Your task to perform on an android device: turn pop-ups on in chrome Image 0: 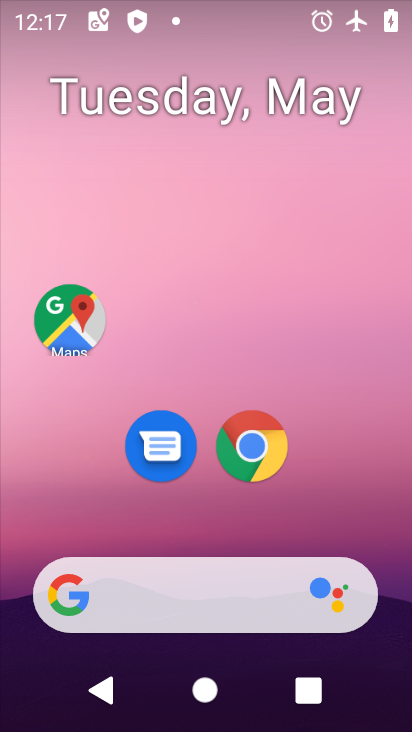
Step 0: click (241, 460)
Your task to perform on an android device: turn pop-ups on in chrome Image 1: 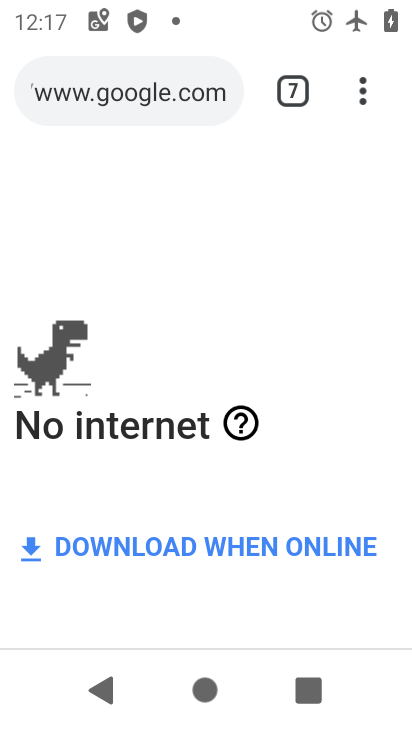
Step 1: click (360, 91)
Your task to perform on an android device: turn pop-ups on in chrome Image 2: 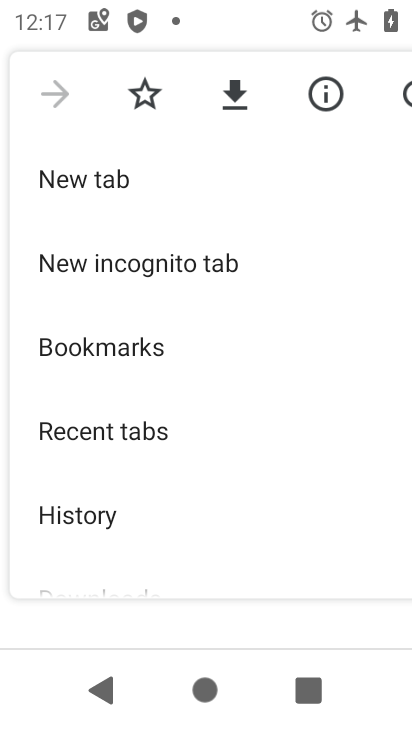
Step 2: drag from (213, 501) to (250, 99)
Your task to perform on an android device: turn pop-ups on in chrome Image 3: 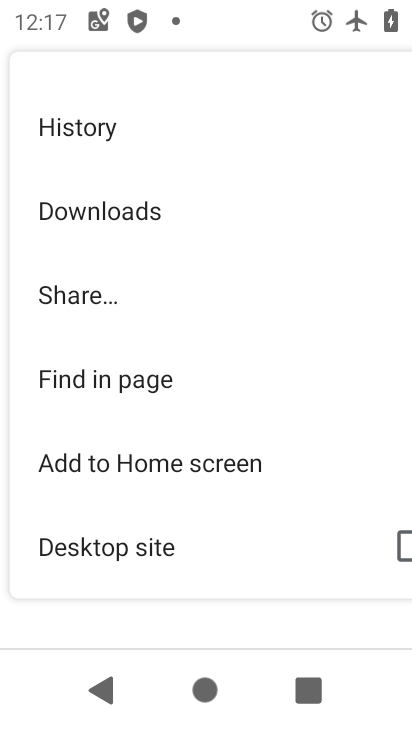
Step 3: drag from (147, 508) to (201, 184)
Your task to perform on an android device: turn pop-ups on in chrome Image 4: 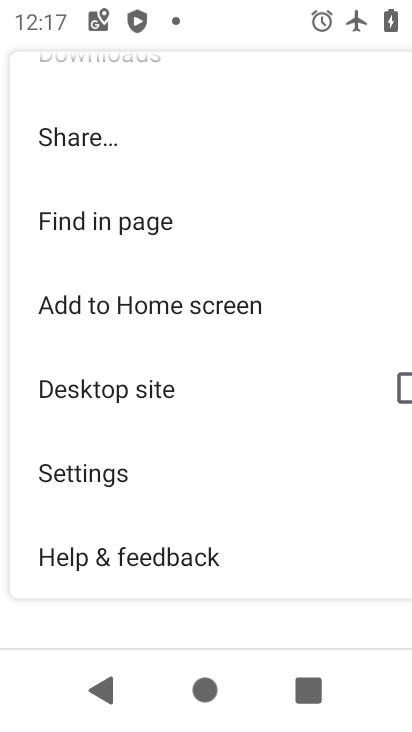
Step 4: click (119, 478)
Your task to perform on an android device: turn pop-ups on in chrome Image 5: 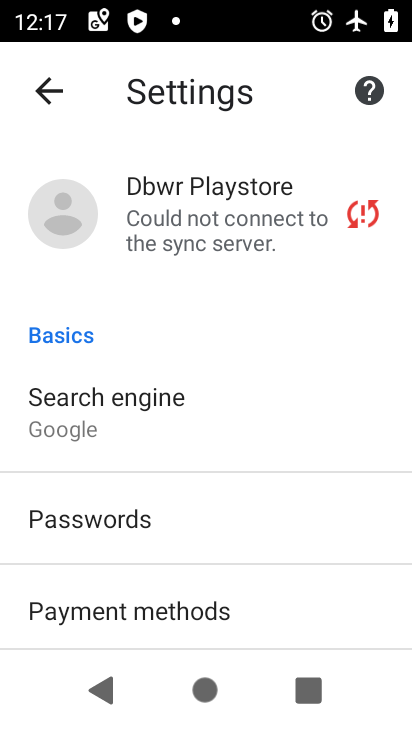
Step 5: drag from (200, 590) to (225, 243)
Your task to perform on an android device: turn pop-ups on in chrome Image 6: 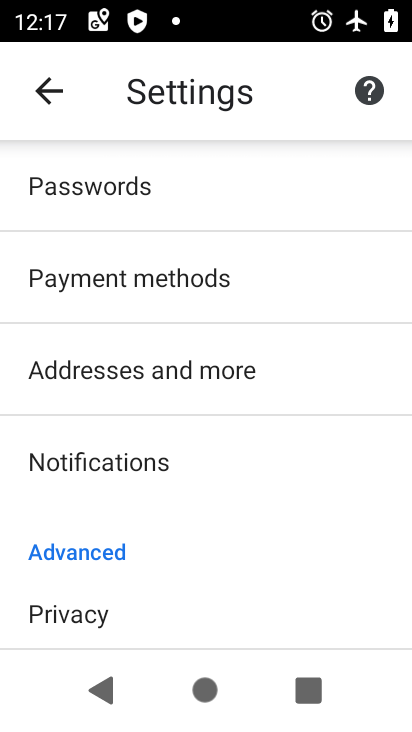
Step 6: drag from (217, 569) to (278, 240)
Your task to perform on an android device: turn pop-ups on in chrome Image 7: 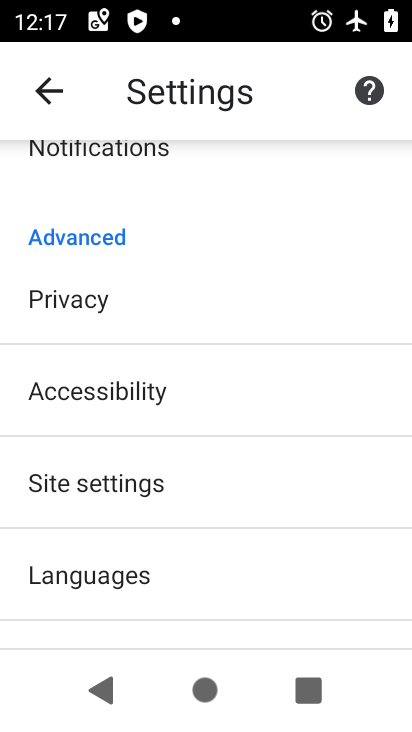
Step 7: click (168, 486)
Your task to perform on an android device: turn pop-ups on in chrome Image 8: 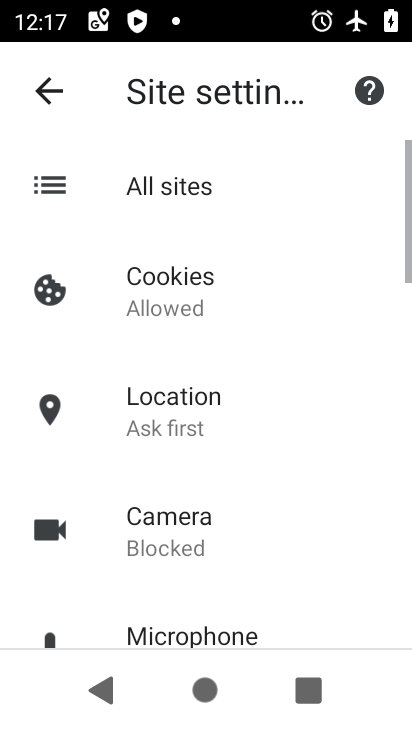
Step 8: drag from (222, 580) to (259, 210)
Your task to perform on an android device: turn pop-ups on in chrome Image 9: 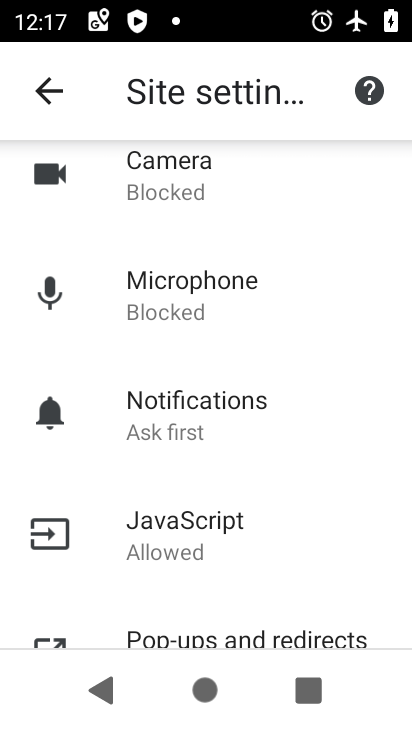
Step 9: drag from (238, 560) to (255, 375)
Your task to perform on an android device: turn pop-ups on in chrome Image 10: 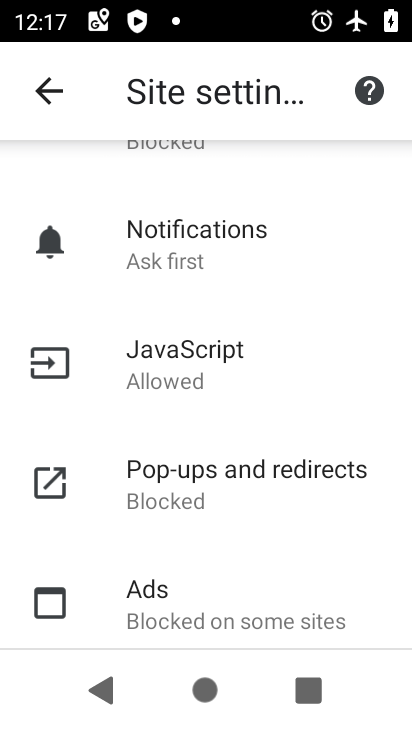
Step 10: click (219, 482)
Your task to perform on an android device: turn pop-ups on in chrome Image 11: 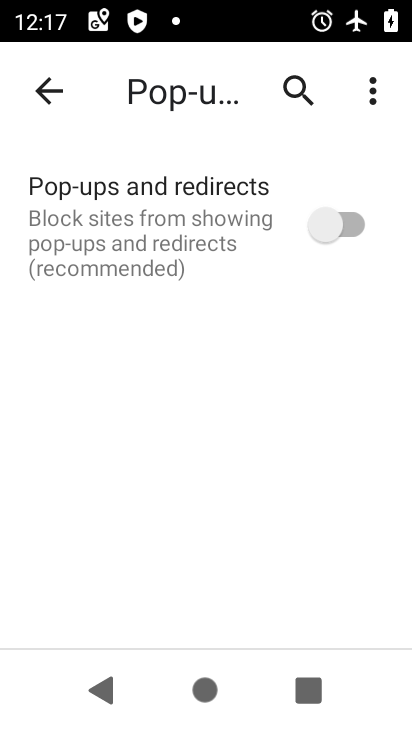
Step 11: click (356, 222)
Your task to perform on an android device: turn pop-ups on in chrome Image 12: 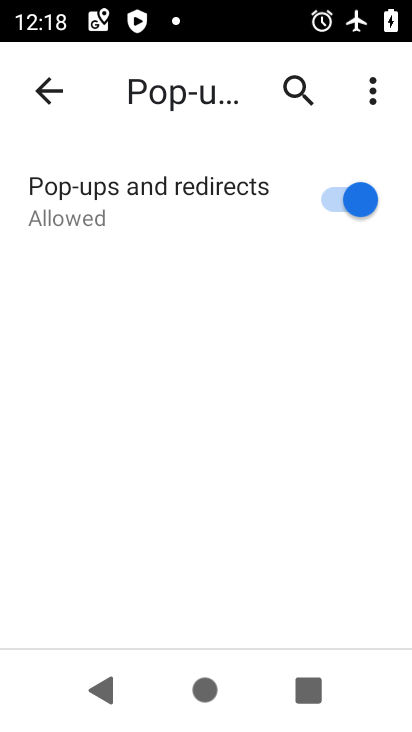
Step 12: task complete